Your task to perform on an android device: uninstall "Google Calendar" Image 0: 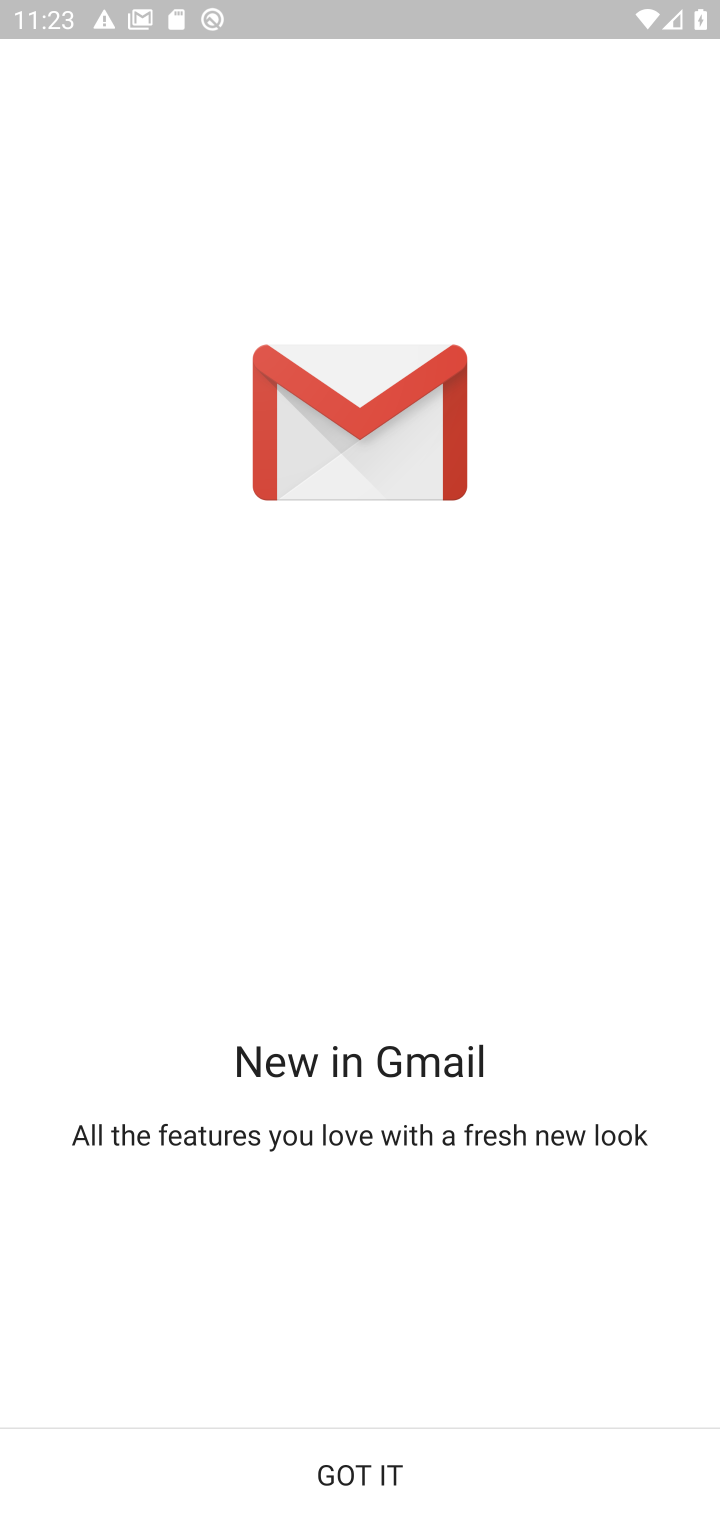
Step 0: press home button
Your task to perform on an android device: uninstall "Google Calendar" Image 1: 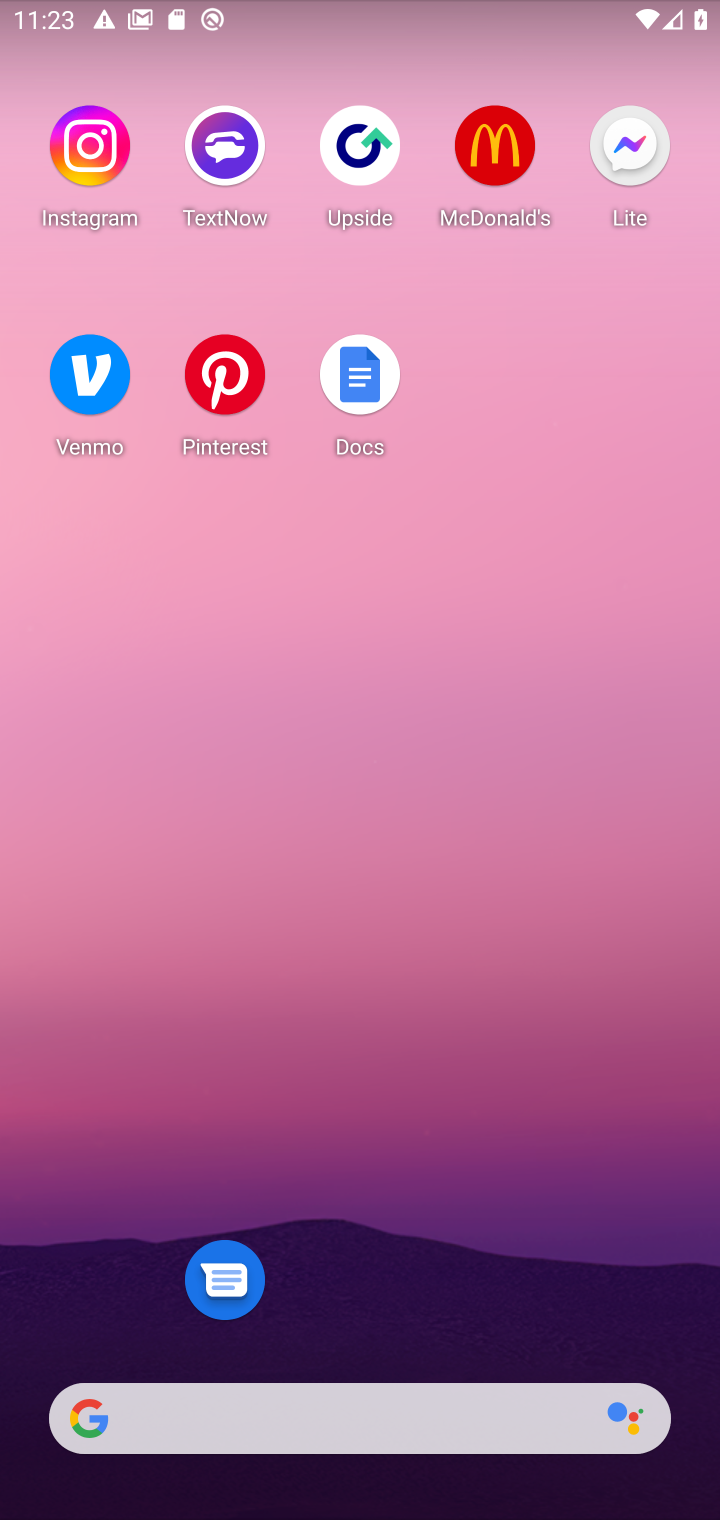
Step 1: drag from (311, 1310) to (634, 954)
Your task to perform on an android device: uninstall "Google Calendar" Image 2: 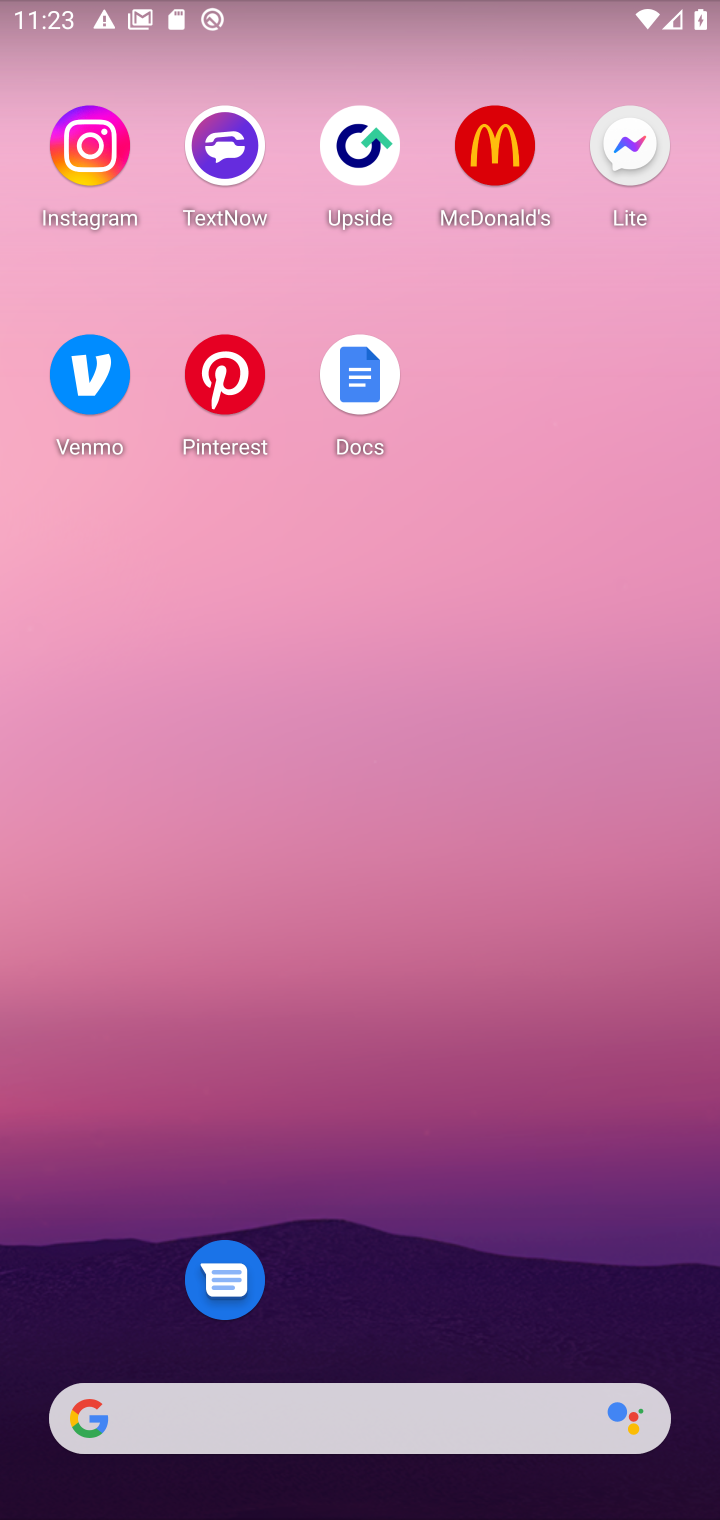
Step 2: drag from (361, 1317) to (546, 38)
Your task to perform on an android device: uninstall "Google Calendar" Image 3: 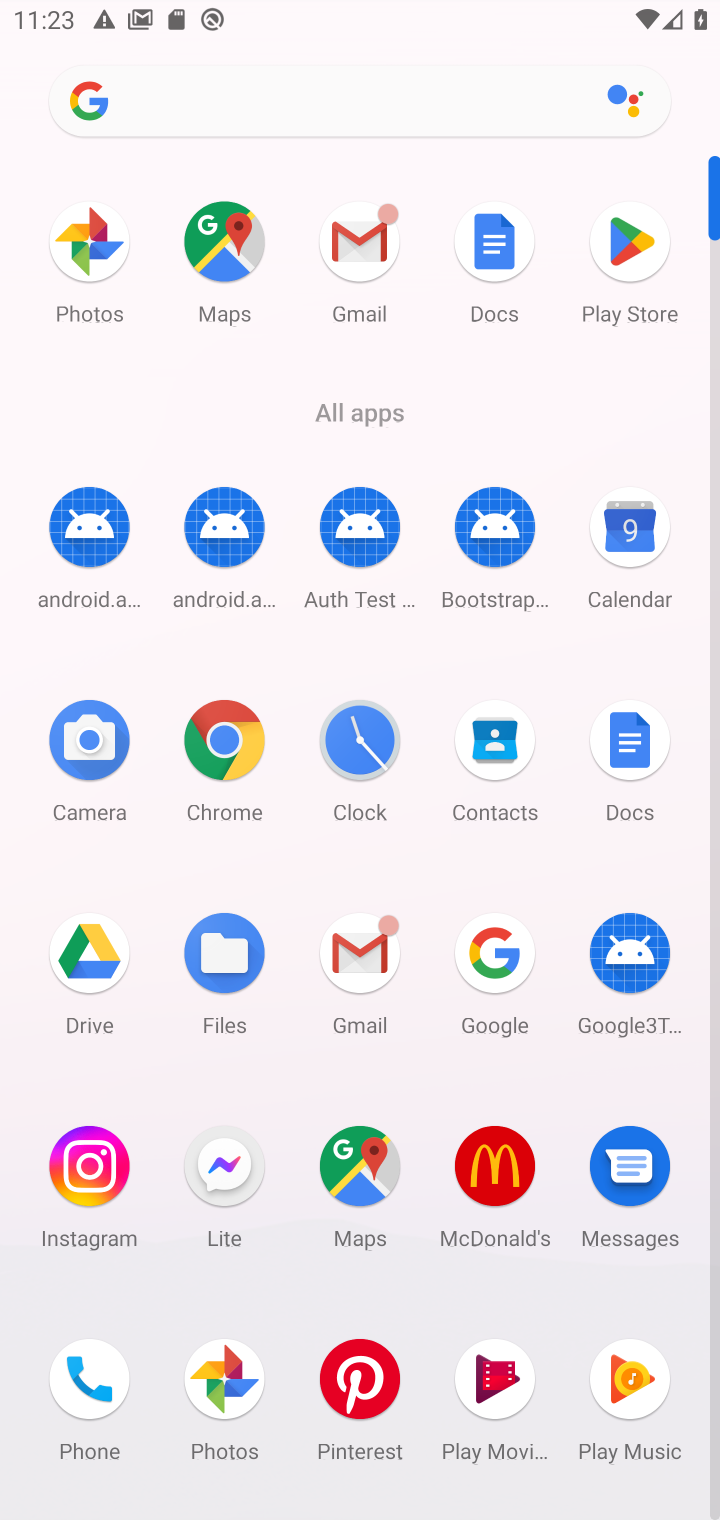
Step 3: drag from (638, 534) to (538, 245)
Your task to perform on an android device: uninstall "Google Calendar" Image 4: 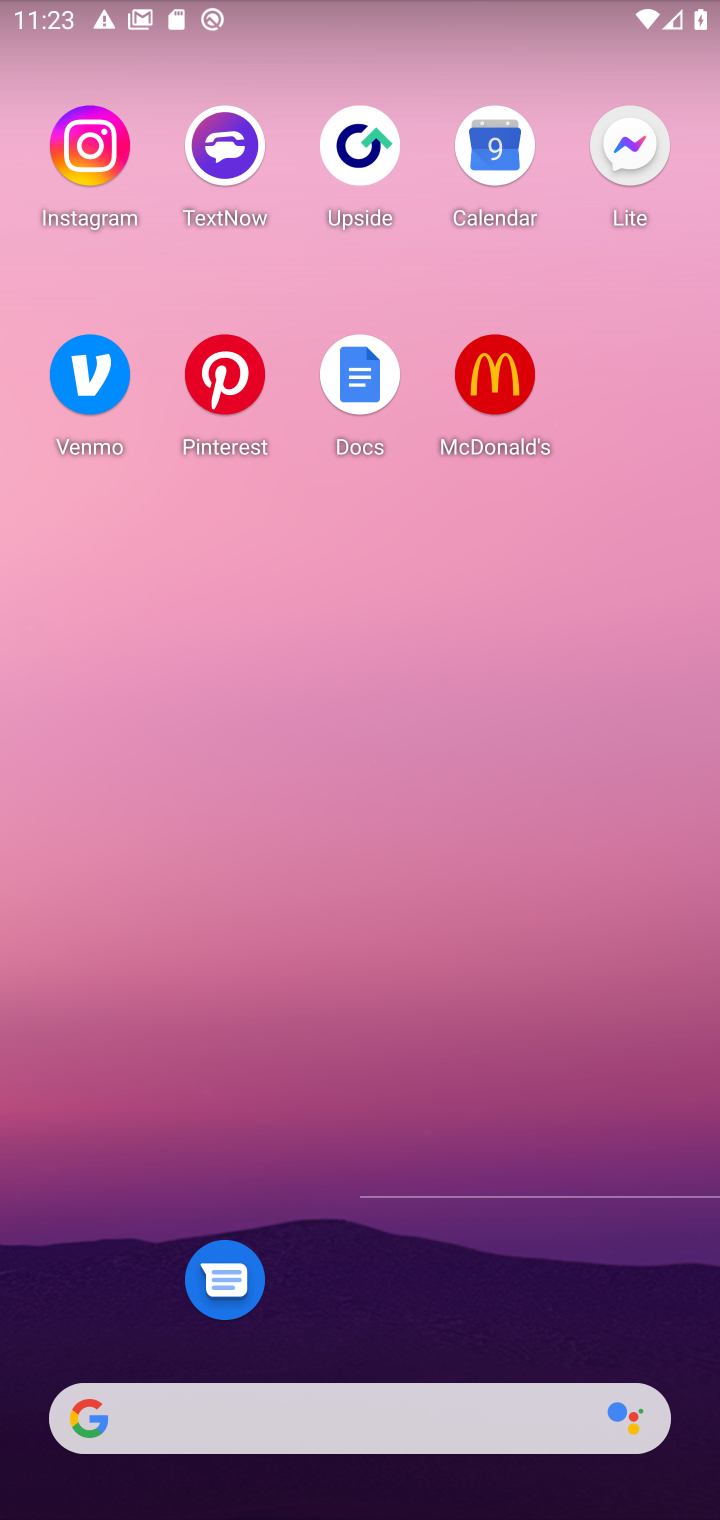
Step 4: click (475, 186)
Your task to perform on an android device: uninstall "Google Calendar" Image 5: 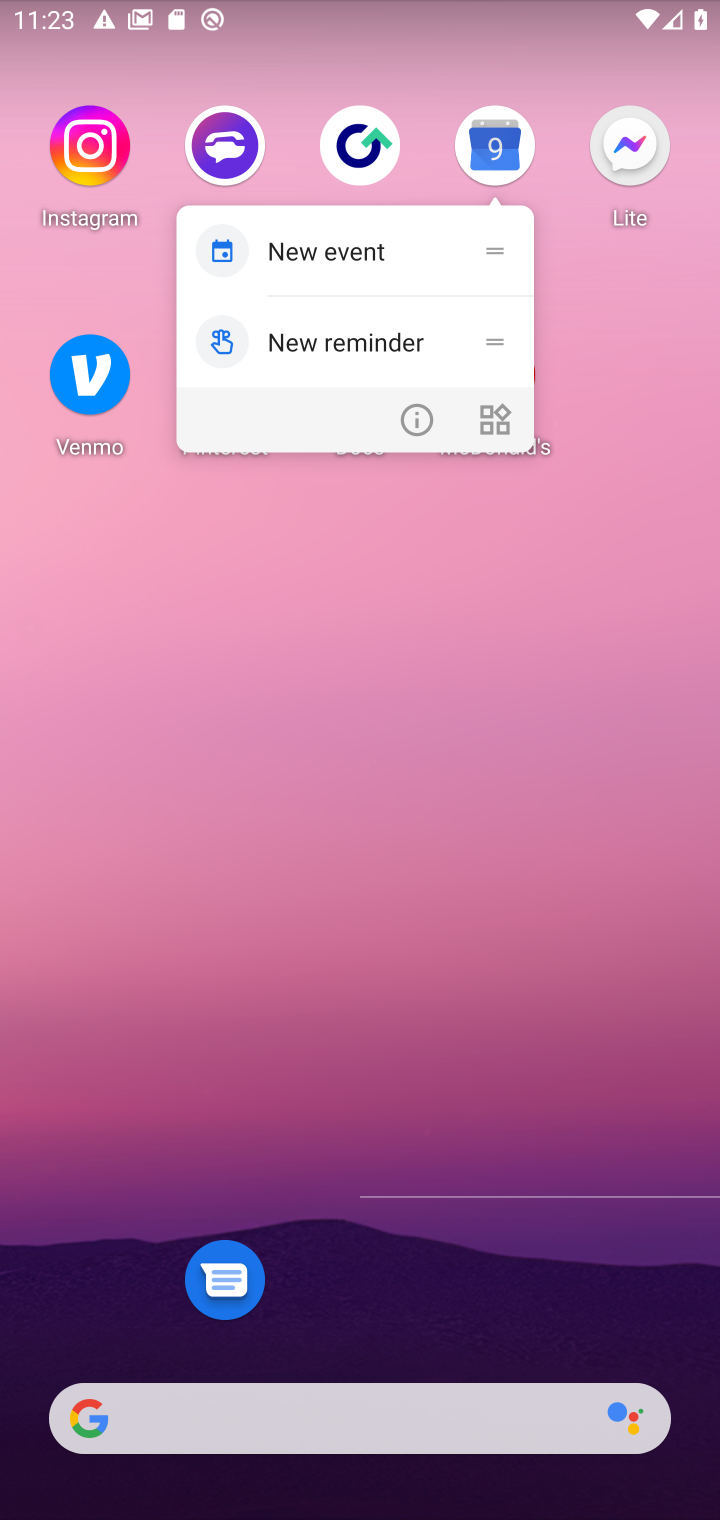
Step 5: click (415, 428)
Your task to perform on an android device: uninstall "Google Calendar" Image 6: 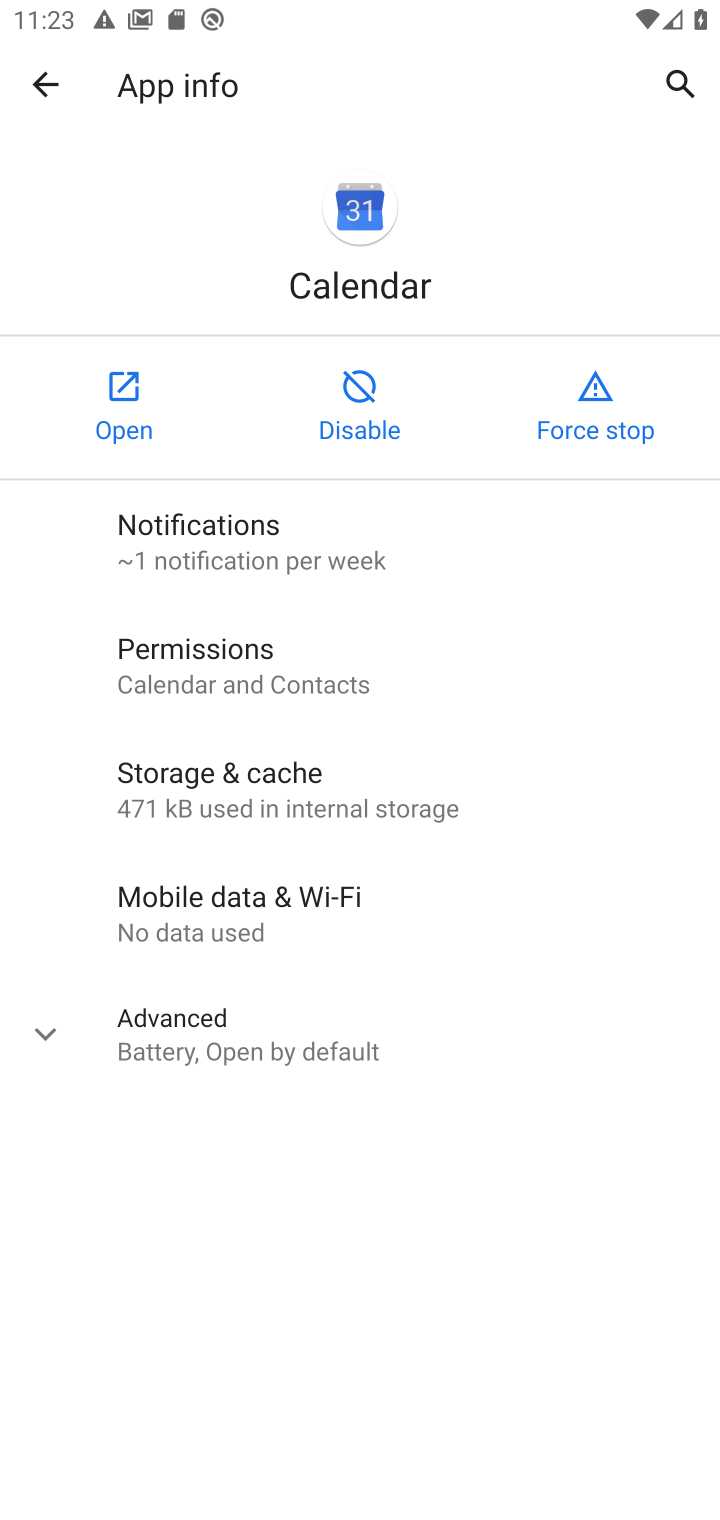
Step 6: task complete